Your task to perform on an android device: Open calendar and show me the first week of next month Image 0: 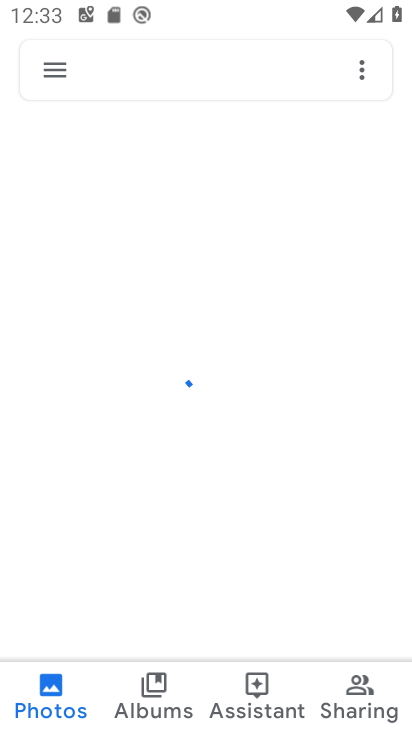
Step 0: press home button
Your task to perform on an android device: Open calendar and show me the first week of next month Image 1: 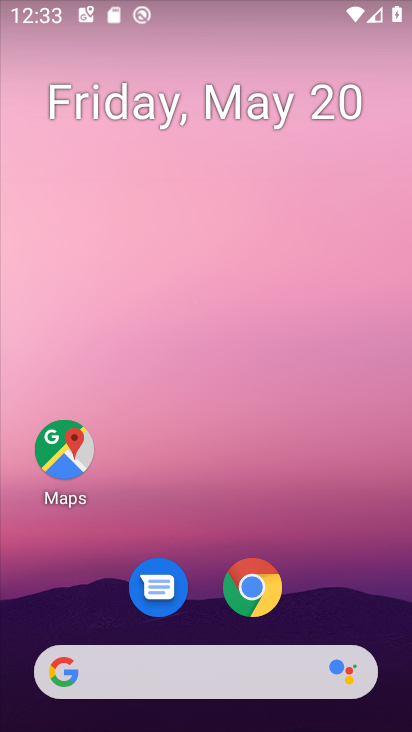
Step 1: drag from (347, 612) to (345, 320)
Your task to perform on an android device: Open calendar and show me the first week of next month Image 2: 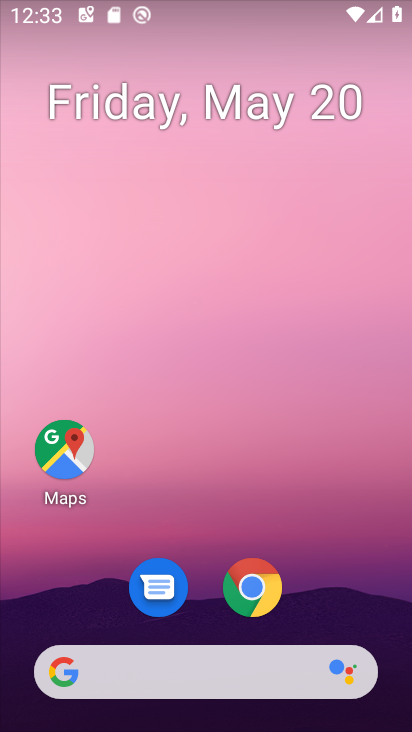
Step 2: drag from (376, 600) to (365, 277)
Your task to perform on an android device: Open calendar and show me the first week of next month Image 3: 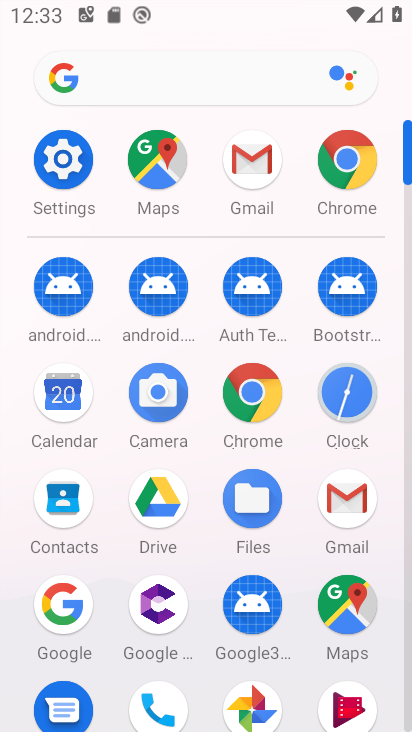
Step 3: click (70, 412)
Your task to perform on an android device: Open calendar and show me the first week of next month Image 4: 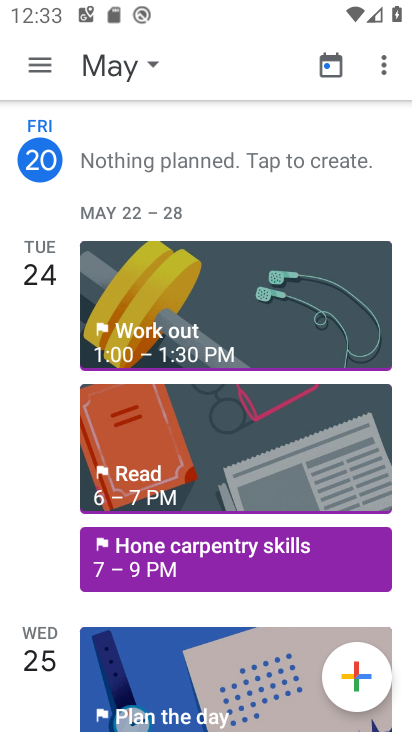
Step 4: click (159, 61)
Your task to perform on an android device: Open calendar and show me the first week of next month Image 5: 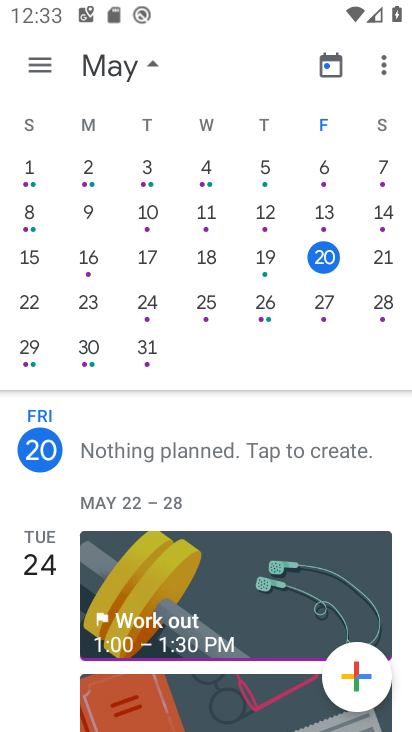
Step 5: drag from (375, 146) to (3, 146)
Your task to perform on an android device: Open calendar and show me the first week of next month Image 6: 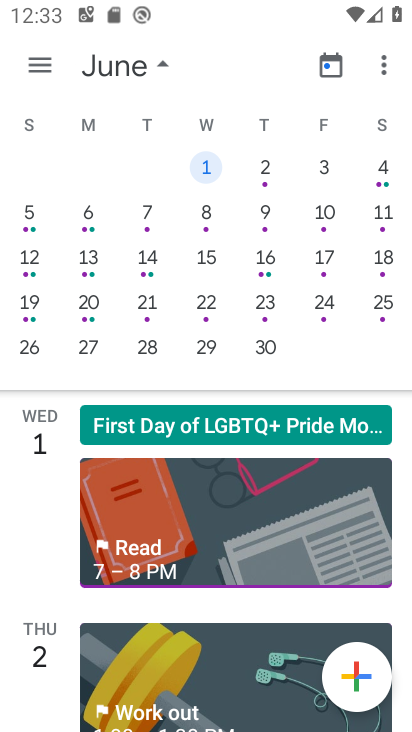
Step 6: click (202, 169)
Your task to perform on an android device: Open calendar and show me the first week of next month Image 7: 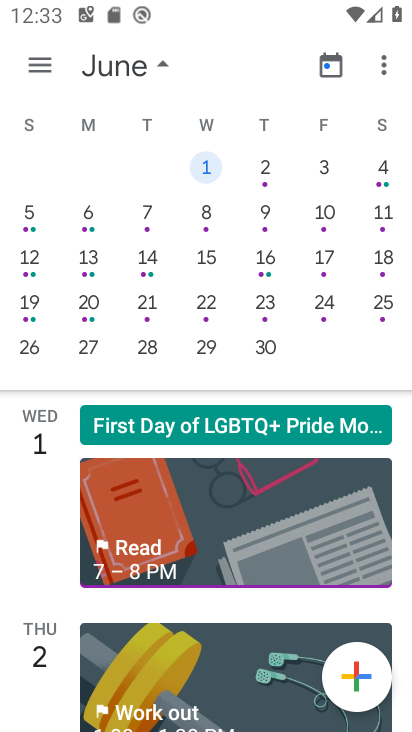
Step 7: task complete